Your task to perform on an android device: Go to Yahoo.com Image 0: 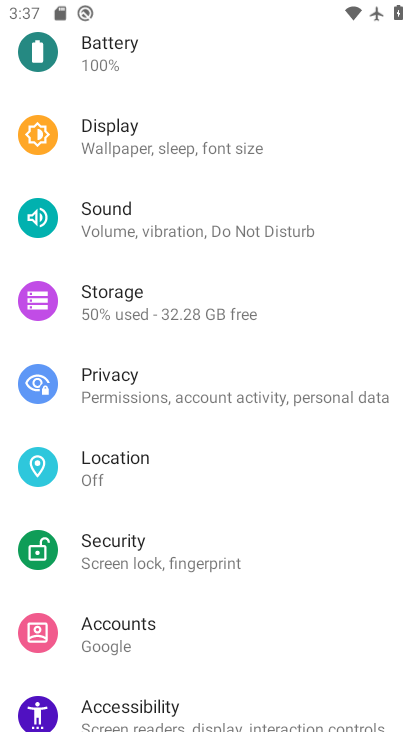
Step 0: press home button
Your task to perform on an android device: Go to Yahoo.com Image 1: 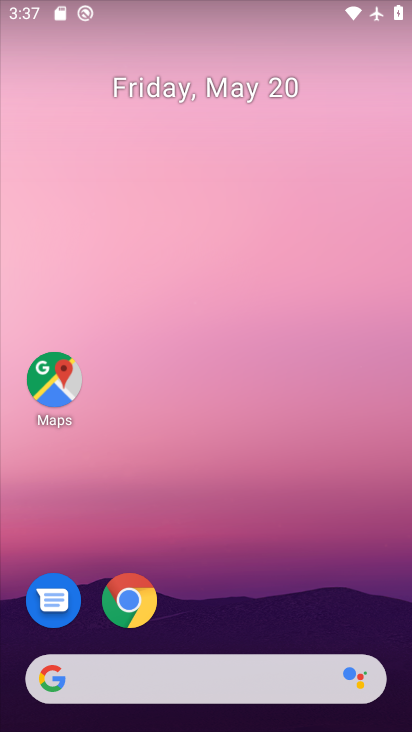
Step 1: click (134, 602)
Your task to perform on an android device: Go to Yahoo.com Image 2: 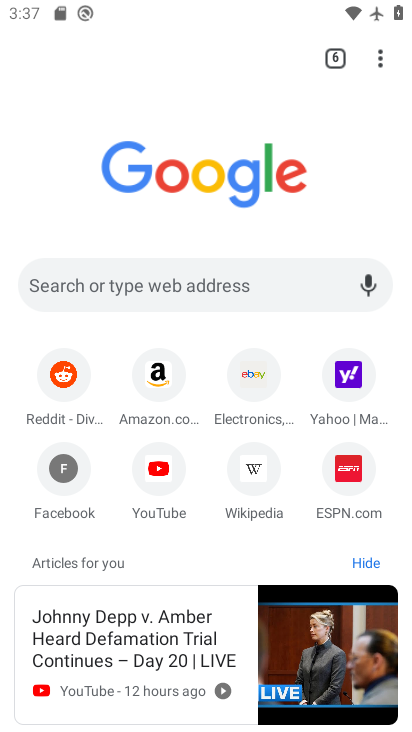
Step 2: click (347, 379)
Your task to perform on an android device: Go to Yahoo.com Image 3: 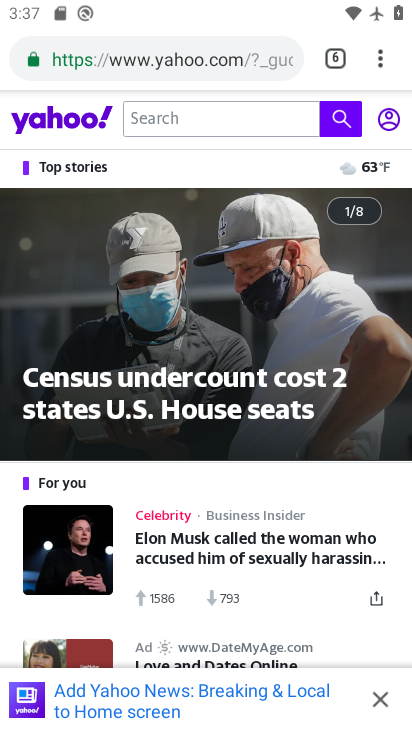
Step 3: task complete